Your task to perform on an android device: Set the phone to "Do not disturb". Image 0: 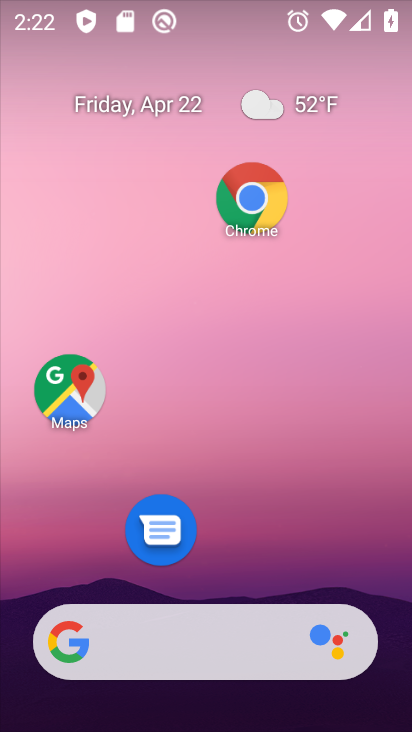
Step 0: drag from (208, 28) to (289, 554)
Your task to perform on an android device: Set the phone to "Do not disturb". Image 1: 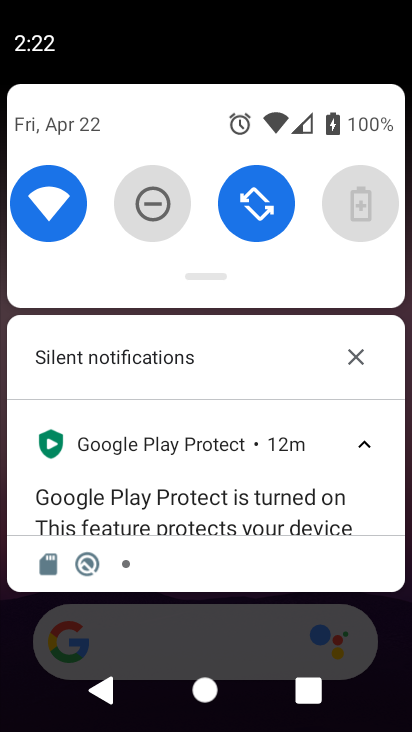
Step 1: click (147, 212)
Your task to perform on an android device: Set the phone to "Do not disturb". Image 2: 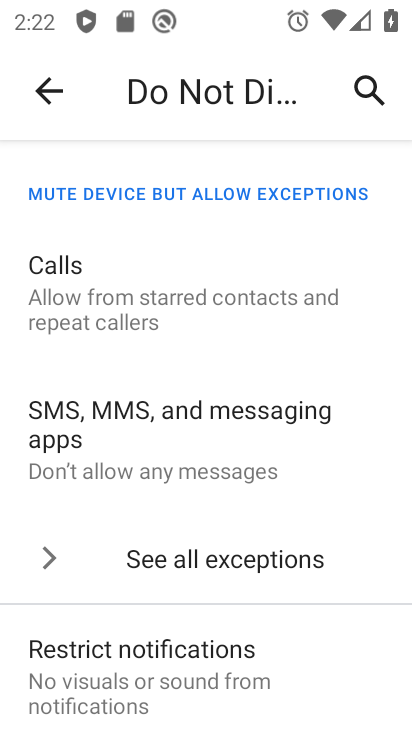
Step 2: drag from (200, 12) to (215, 586)
Your task to perform on an android device: Set the phone to "Do not disturb". Image 3: 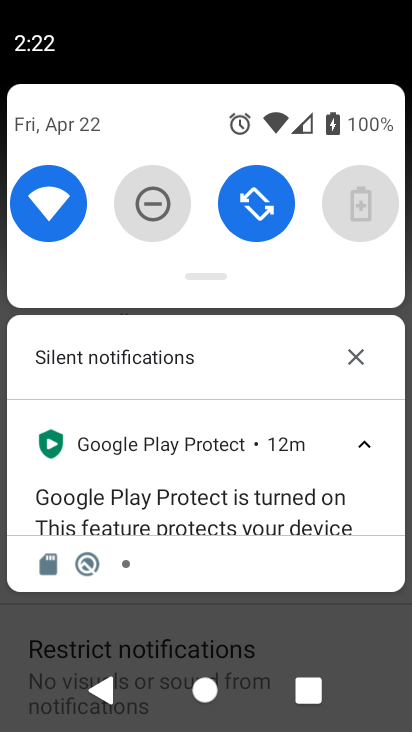
Step 3: click (155, 211)
Your task to perform on an android device: Set the phone to "Do not disturb". Image 4: 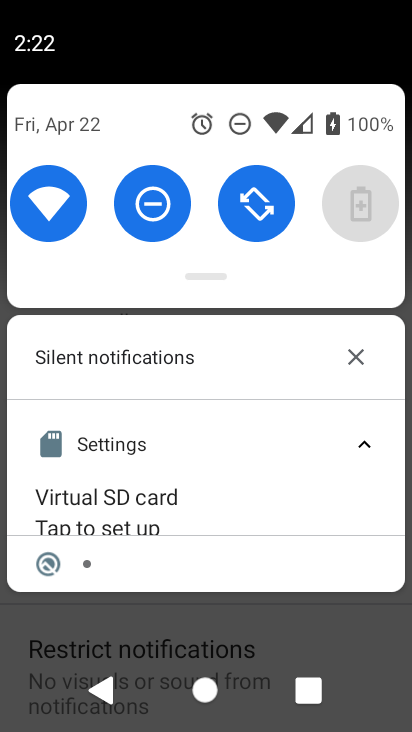
Step 4: click (229, 634)
Your task to perform on an android device: Set the phone to "Do not disturb". Image 5: 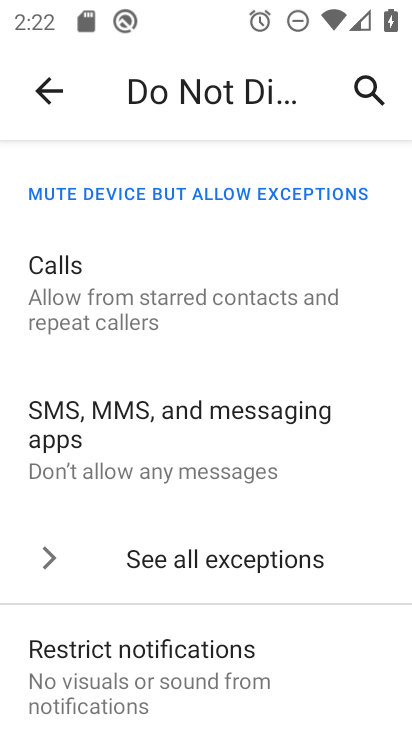
Step 5: task complete